Your task to perform on an android device: Open wifi settings Image 0: 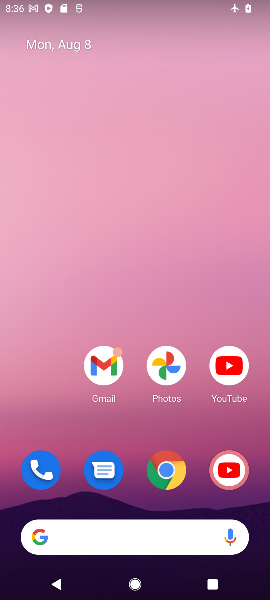
Step 0: drag from (121, 522) to (140, 253)
Your task to perform on an android device: Open wifi settings Image 1: 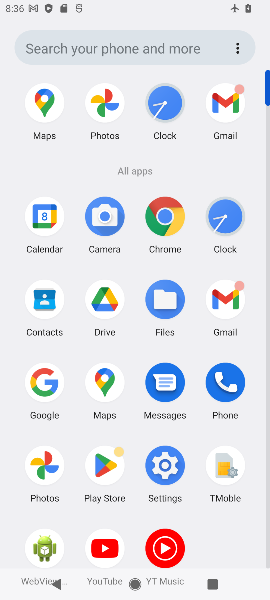
Step 1: click (164, 464)
Your task to perform on an android device: Open wifi settings Image 2: 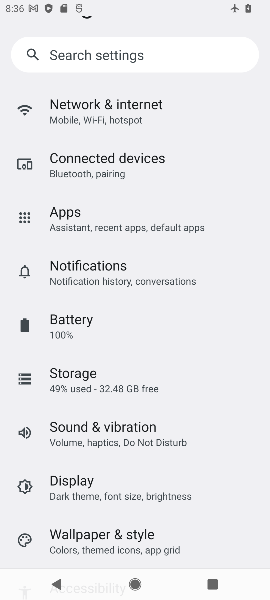
Step 2: click (98, 113)
Your task to perform on an android device: Open wifi settings Image 3: 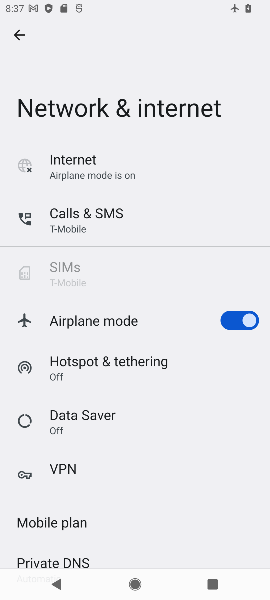
Step 3: click (100, 169)
Your task to perform on an android device: Open wifi settings Image 4: 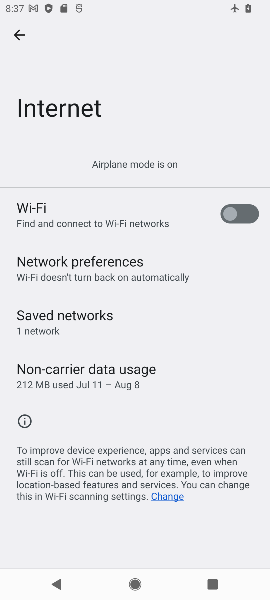
Step 4: click (240, 217)
Your task to perform on an android device: Open wifi settings Image 5: 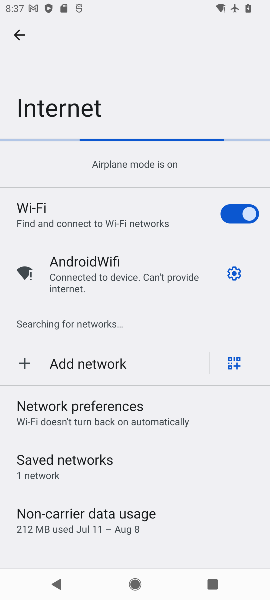
Step 5: click (75, 217)
Your task to perform on an android device: Open wifi settings Image 6: 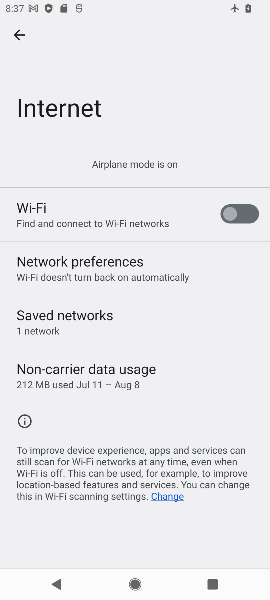
Step 6: click (243, 215)
Your task to perform on an android device: Open wifi settings Image 7: 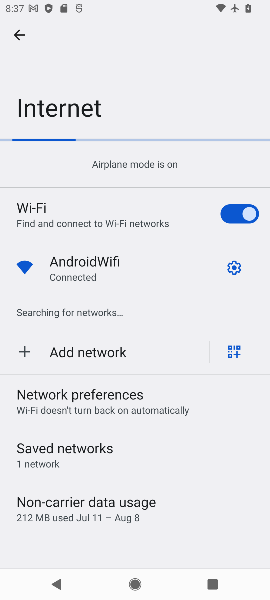
Step 7: click (227, 273)
Your task to perform on an android device: Open wifi settings Image 8: 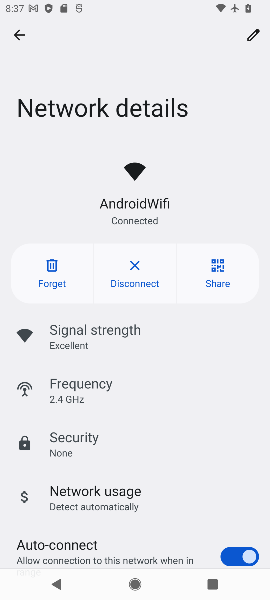
Step 8: task complete